Your task to perform on an android device: delete the emails in spam in the gmail app Image 0: 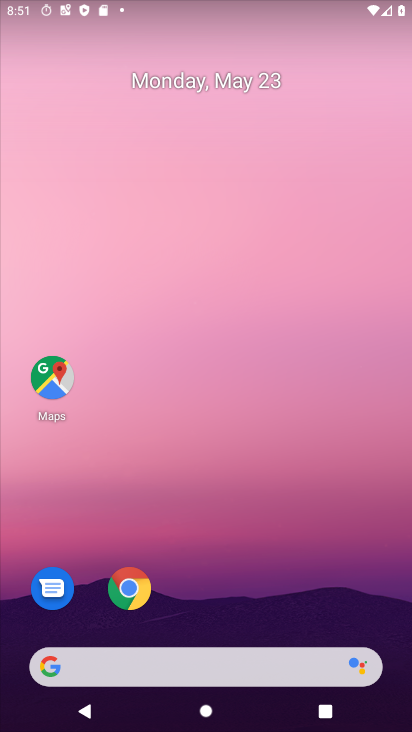
Step 0: drag from (387, 430) to (338, 200)
Your task to perform on an android device: delete the emails in spam in the gmail app Image 1: 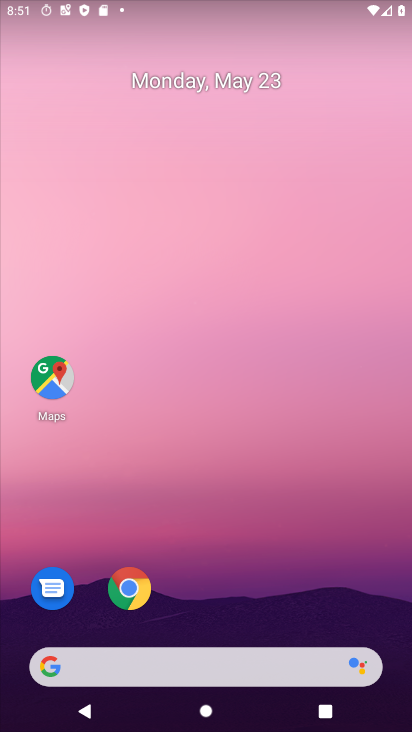
Step 1: drag from (394, 644) to (338, 131)
Your task to perform on an android device: delete the emails in spam in the gmail app Image 2: 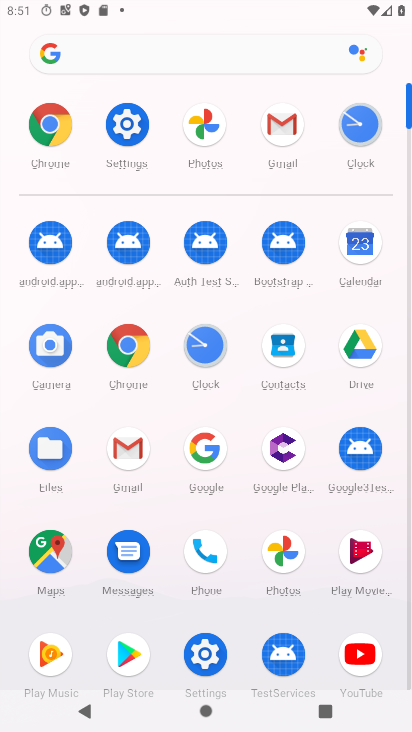
Step 2: click (287, 129)
Your task to perform on an android device: delete the emails in spam in the gmail app Image 3: 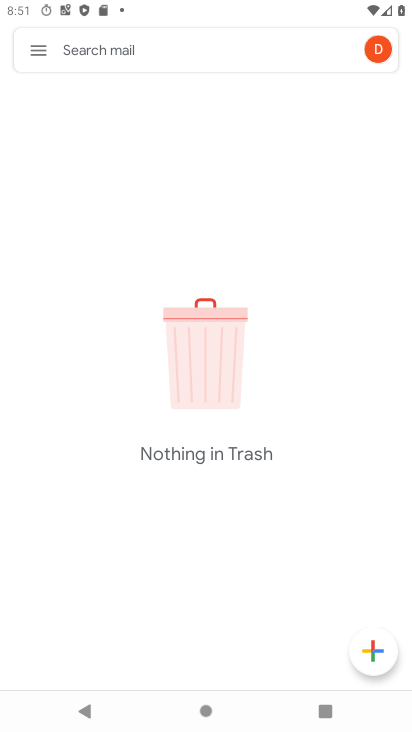
Step 3: click (31, 49)
Your task to perform on an android device: delete the emails in spam in the gmail app Image 4: 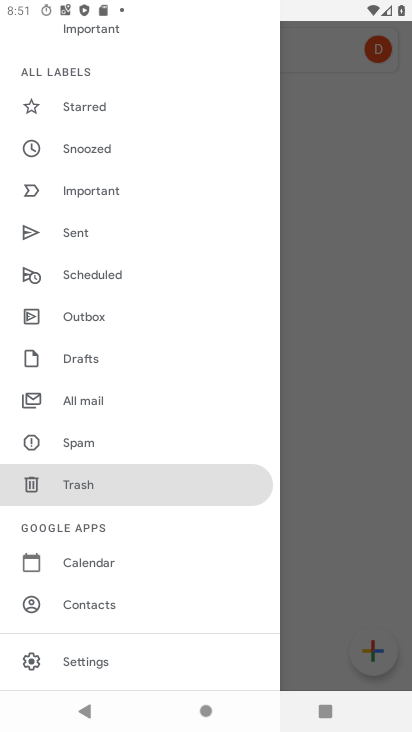
Step 4: drag from (203, 145) to (173, 621)
Your task to perform on an android device: delete the emails in spam in the gmail app Image 5: 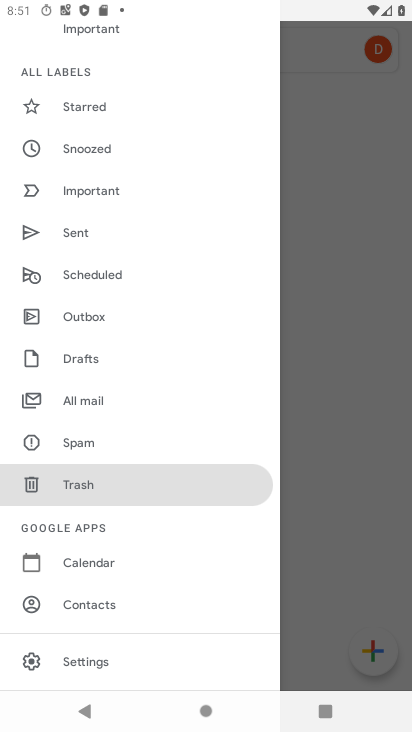
Step 5: drag from (177, 222) to (189, 561)
Your task to perform on an android device: delete the emails in spam in the gmail app Image 6: 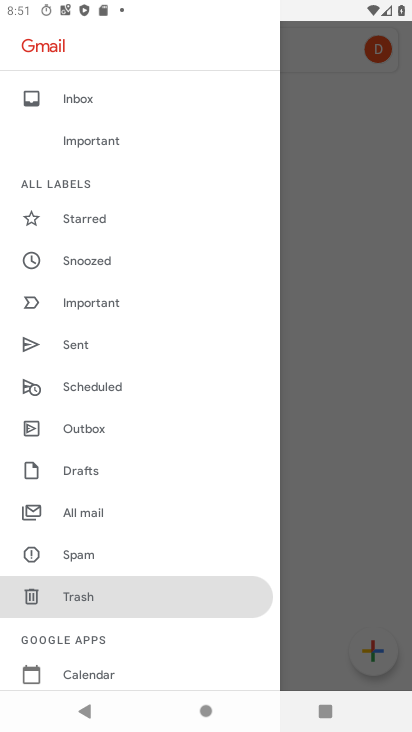
Step 6: click (69, 95)
Your task to perform on an android device: delete the emails in spam in the gmail app Image 7: 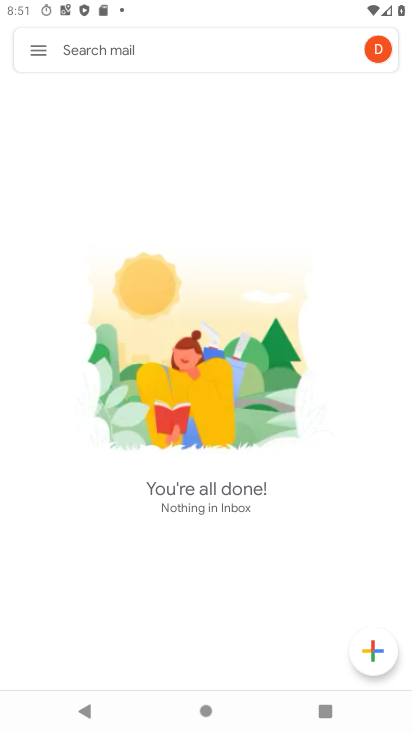
Step 7: task complete